Your task to perform on an android device: Open Maps and search for coffee Image 0: 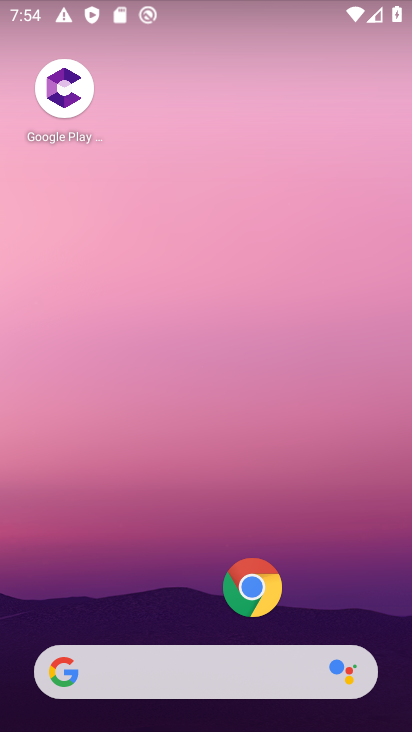
Step 0: drag from (137, 571) to (137, 147)
Your task to perform on an android device: Open Maps and search for coffee Image 1: 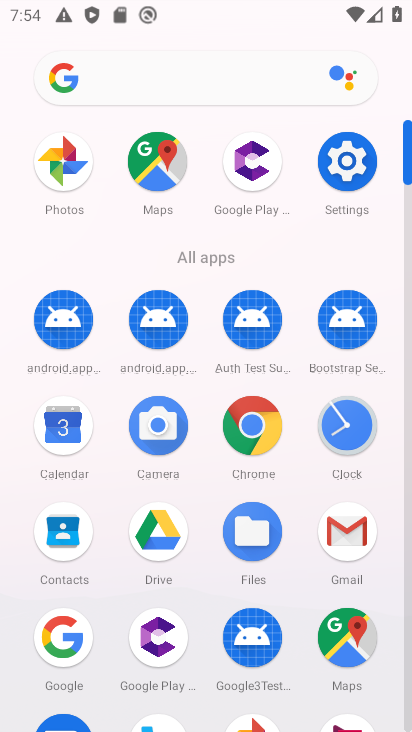
Step 1: click (334, 639)
Your task to perform on an android device: Open Maps and search for coffee Image 2: 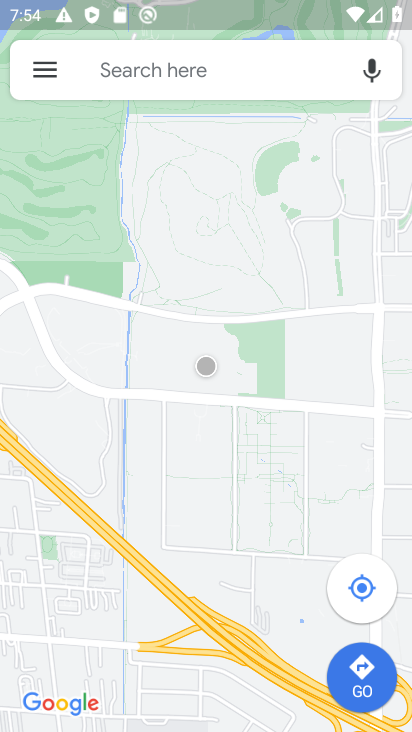
Step 2: click (147, 59)
Your task to perform on an android device: Open Maps and search for coffee Image 3: 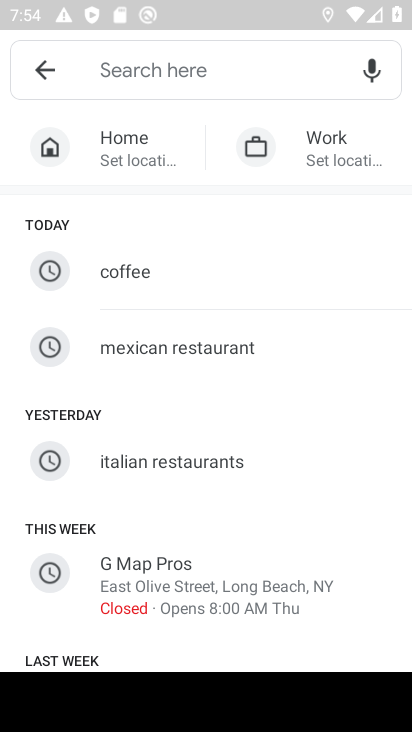
Step 3: type "coffee"
Your task to perform on an android device: Open Maps and search for coffee Image 4: 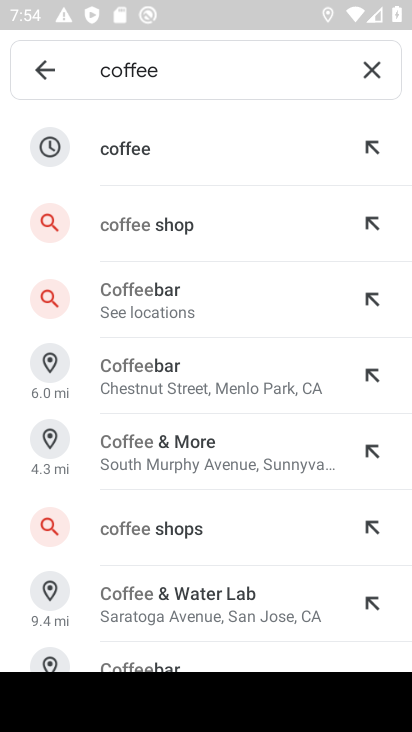
Step 4: click (246, 164)
Your task to perform on an android device: Open Maps and search for coffee Image 5: 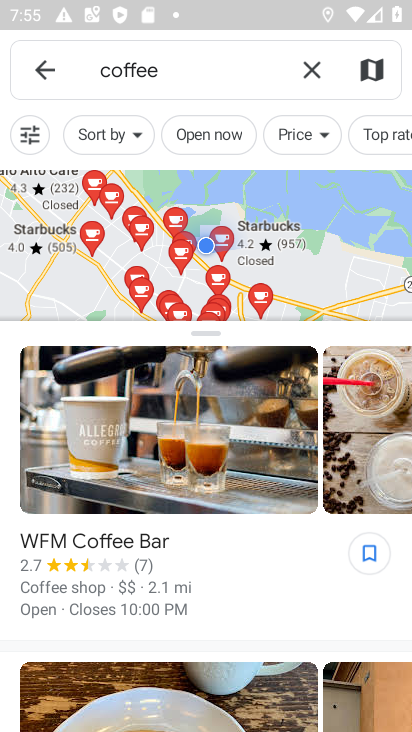
Step 5: task complete